Your task to perform on an android device: change the clock display to analog Image 0: 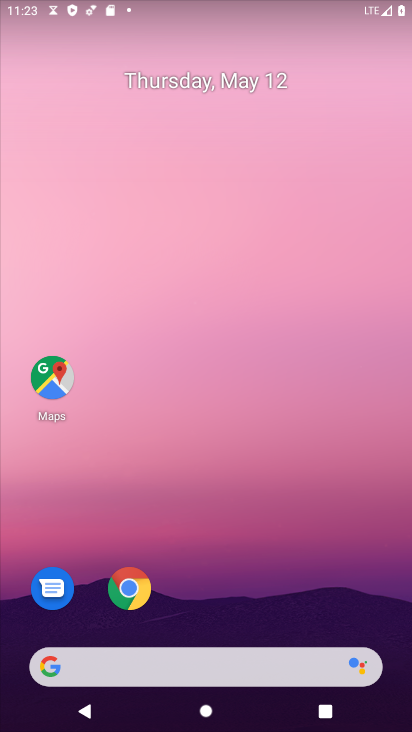
Step 0: drag from (198, 590) to (201, 86)
Your task to perform on an android device: change the clock display to analog Image 1: 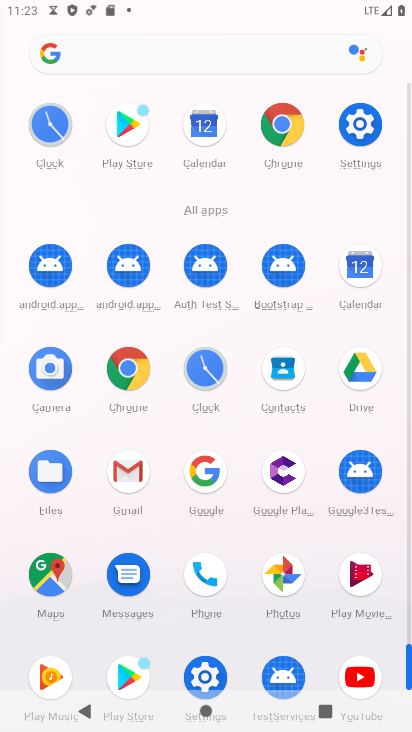
Step 1: click (194, 358)
Your task to perform on an android device: change the clock display to analog Image 2: 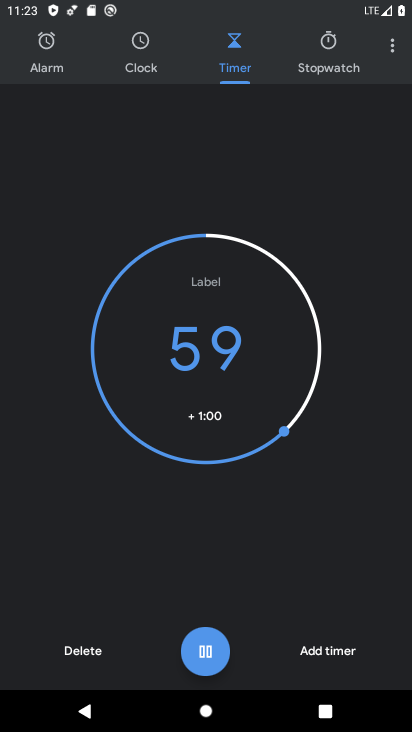
Step 2: click (386, 53)
Your task to perform on an android device: change the clock display to analog Image 3: 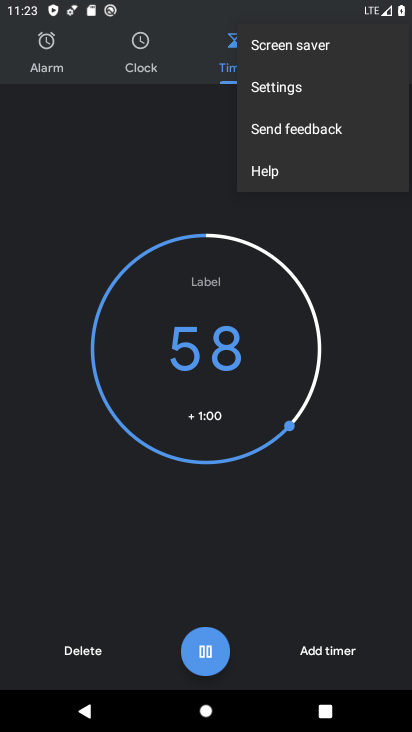
Step 3: click (317, 81)
Your task to perform on an android device: change the clock display to analog Image 4: 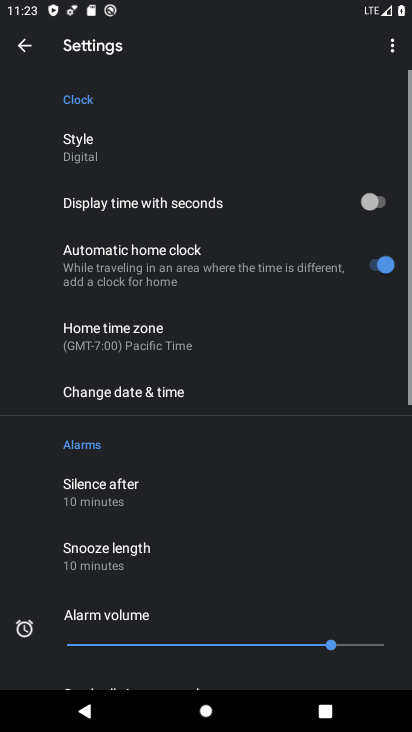
Step 4: click (130, 157)
Your task to perform on an android device: change the clock display to analog Image 5: 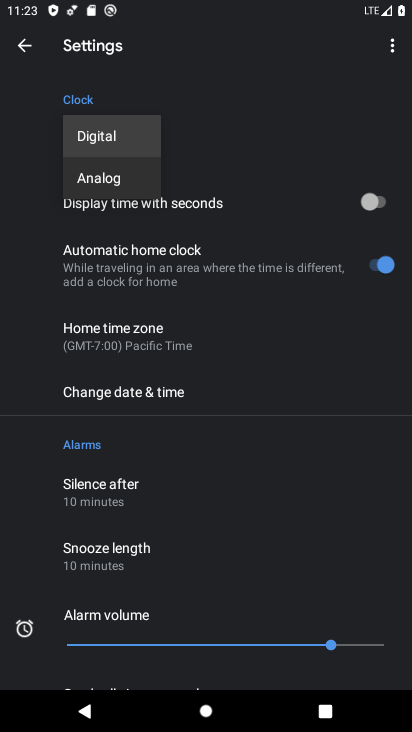
Step 5: click (135, 181)
Your task to perform on an android device: change the clock display to analog Image 6: 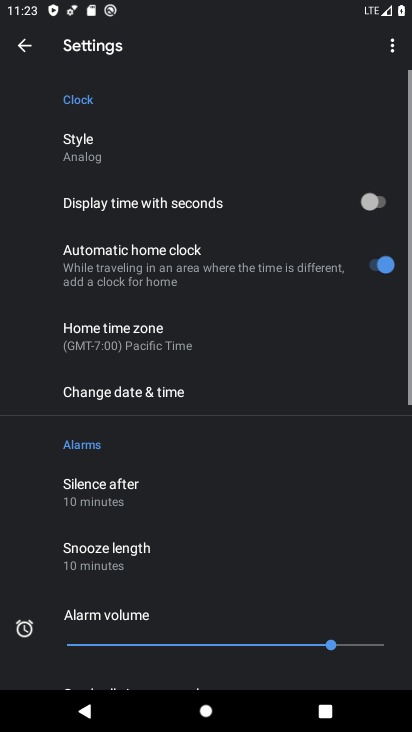
Step 6: task complete